Your task to perform on an android device: Open settings Image 0: 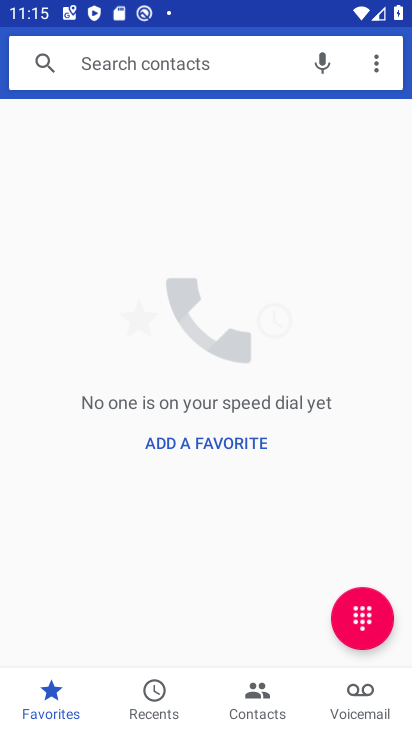
Step 0: press home button
Your task to perform on an android device: Open settings Image 1: 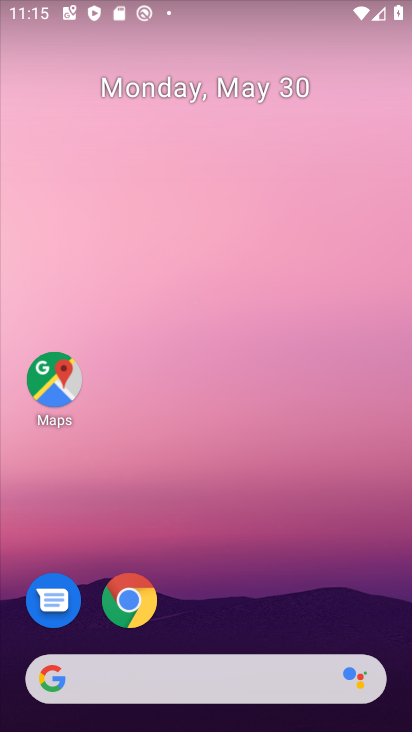
Step 1: drag from (205, 722) to (190, 82)
Your task to perform on an android device: Open settings Image 2: 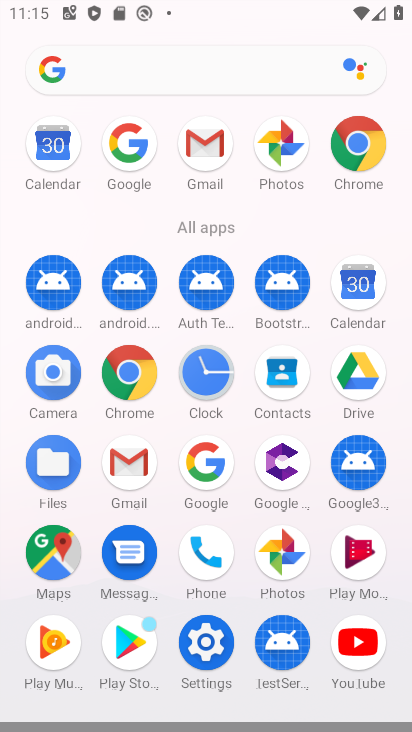
Step 2: click (206, 645)
Your task to perform on an android device: Open settings Image 3: 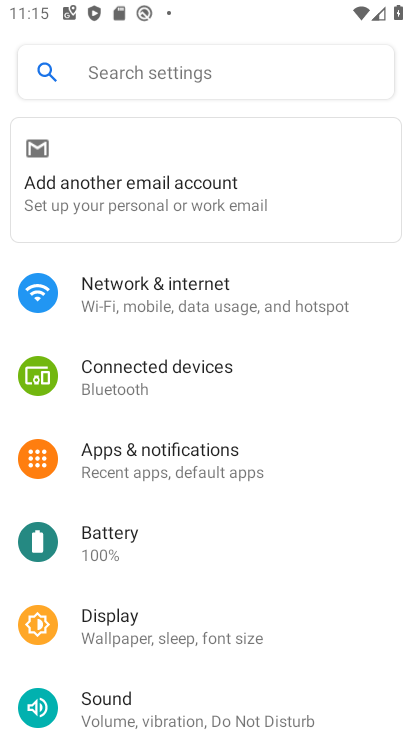
Step 3: task complete